Your task to perform on an android device: change the clock style Image 0: 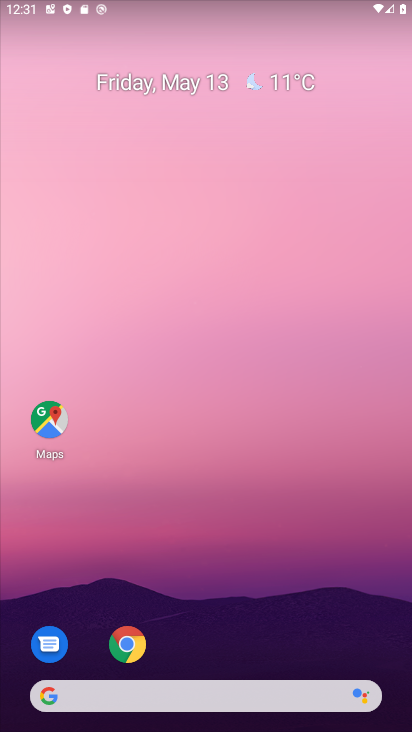
Step 0: drag from (224, 729) to (277, 95)
Your task to perform on an android device: change the clock style Image 1: 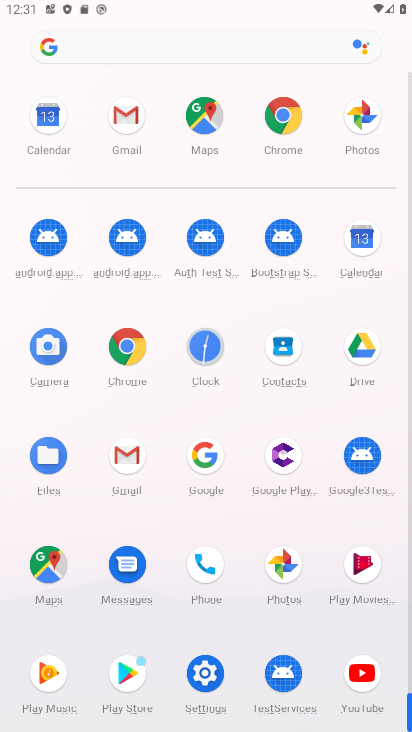
Step 1: click (209, 345)
Your task to perform on an android device: change the clock style Image 2: 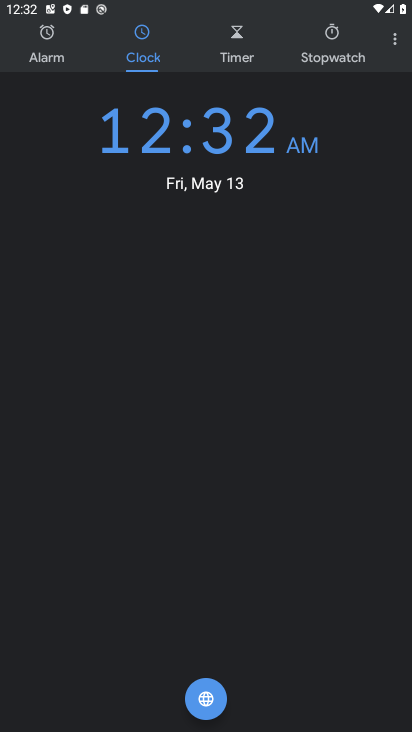
Step 2: click (397, 40)
Your task to perform on an android device: change the clock style Image 3: 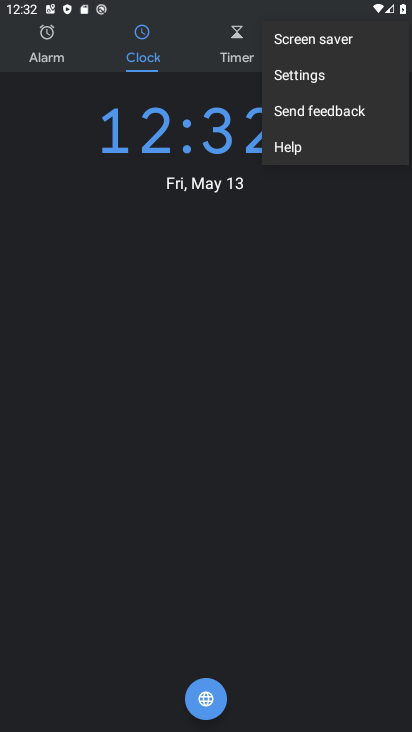
Step 3: click (308, 72)
Your task to perform on an android device: change the clock style Image 4: 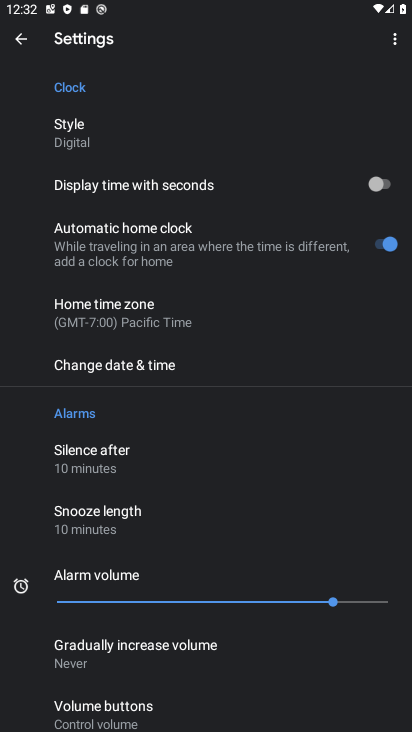
Step 4: click (70, 133)
Your task to perform on an android device: change the clock style Image 5: 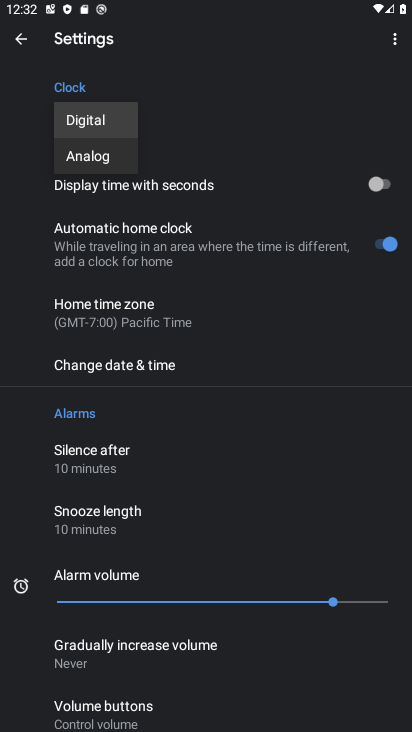
Step 5: click (76, 150)
Your task to perform on an android device: change the clock style Image 6: 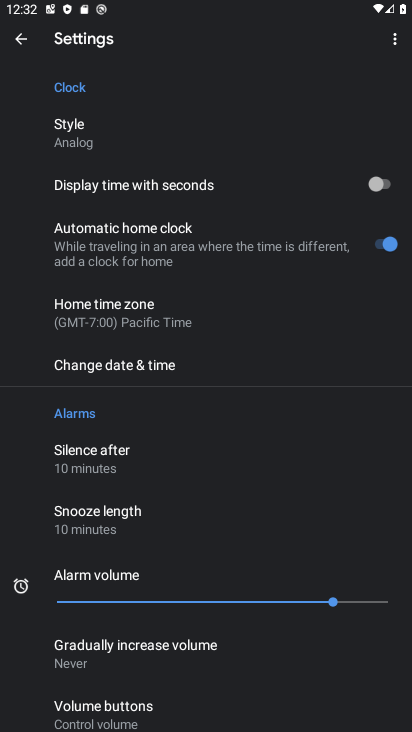
Step 6: task complete